Your task to perform on an android device: Open Chrome and go to settings Image 0: 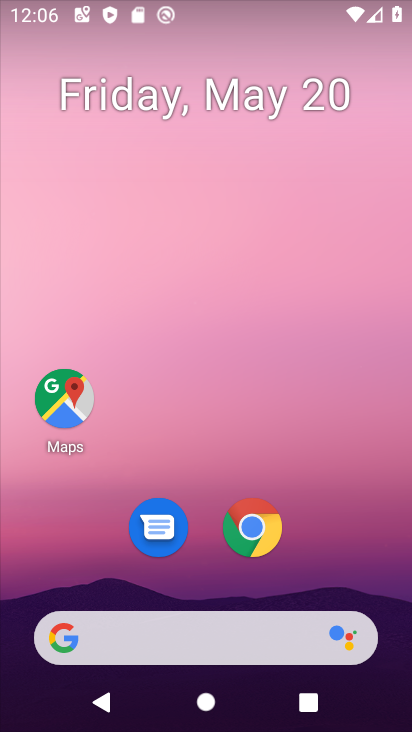
Step 0: press home button
Your task to perform on an android device: Open Chrome and go to settings Image 1: 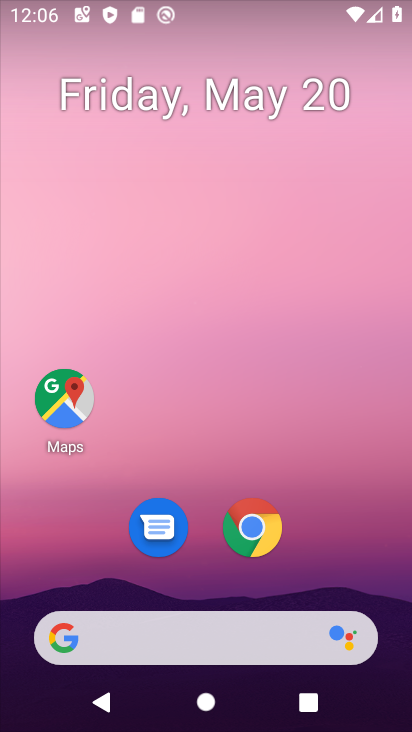
Step 1: click (237, 540)
Your task to perform on an android device: Open Chrome and go to settings Image 2: 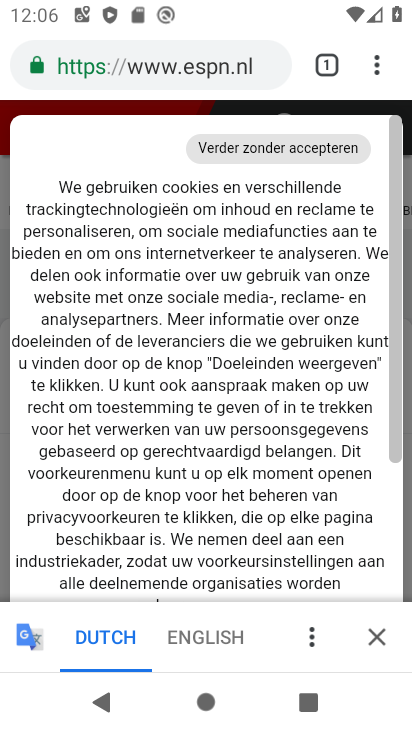
Step 2: task complete